Your task to perform on an android device: turn pop-ups off in chrome Image 0: 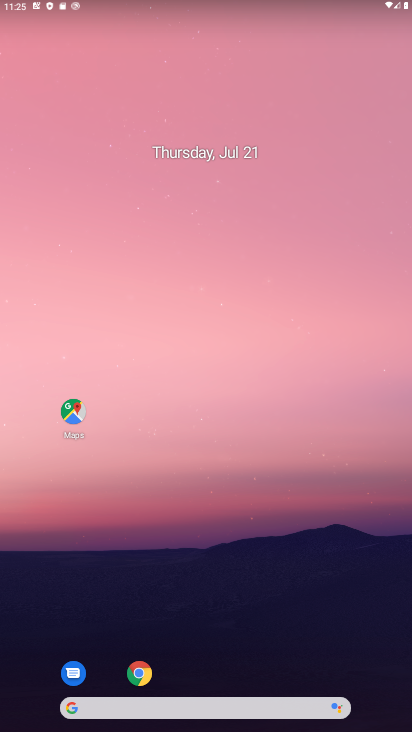
Step 0: click (149, 677)
Your task to perform on an android device: turn pop-ups off in chrome Image 1: 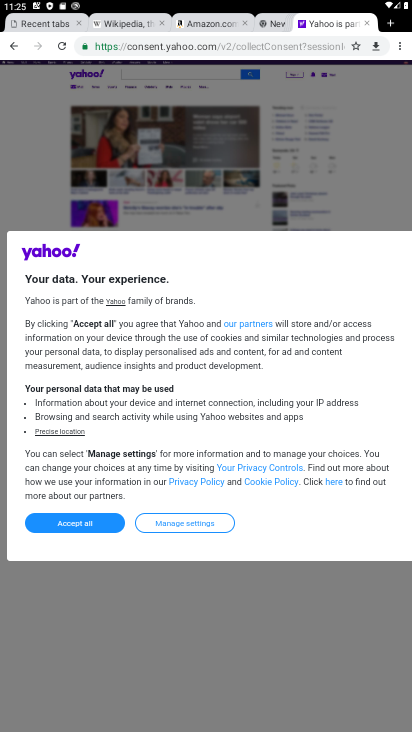
Step 1: click (396, 47)
Your task to perform on an android device: turn pop-ups off in chrome Image 2: 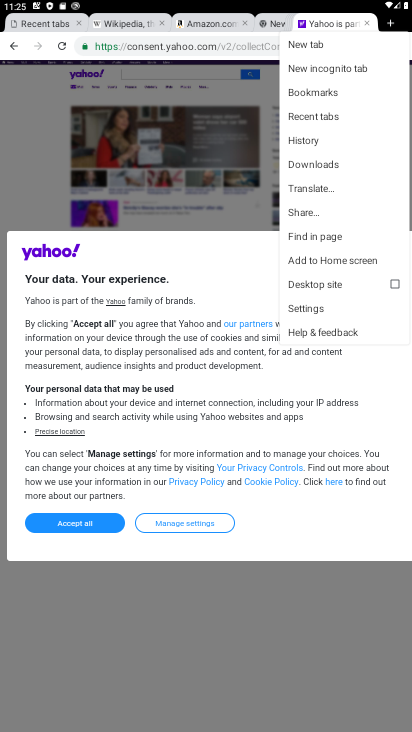
Step 2: click (314, 308)
Your task to perform on an android device: turn pop-ups off in chrome Image 3: 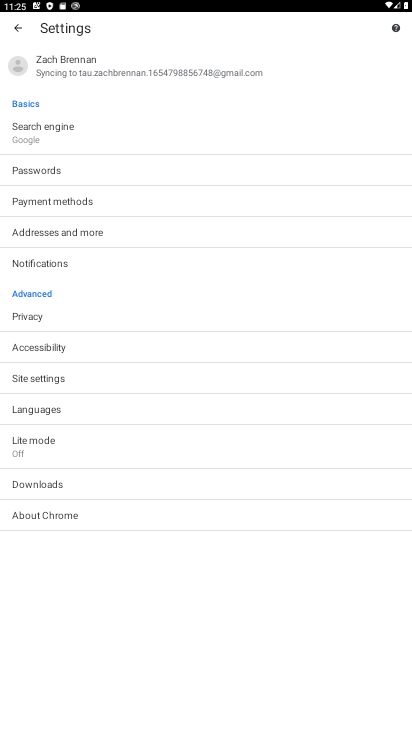
Step 3: click (84, 389)
Your task to perform on an android device: turn pop-ups off in chrome Image 4: 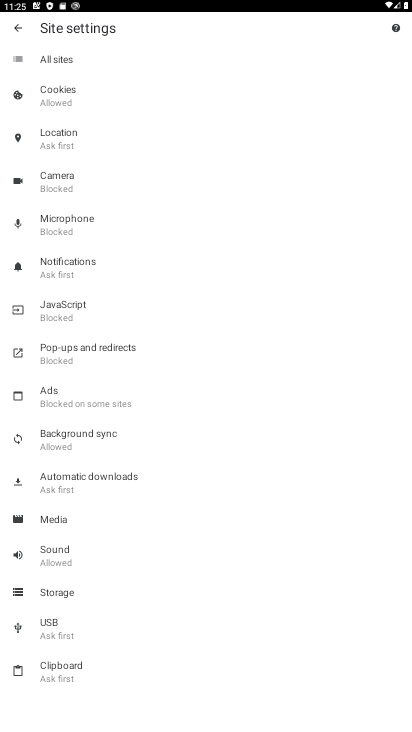
Step 4: click (117, 362)
Your task to perform on an android device: turn pop-ups off in chrome Image 5: 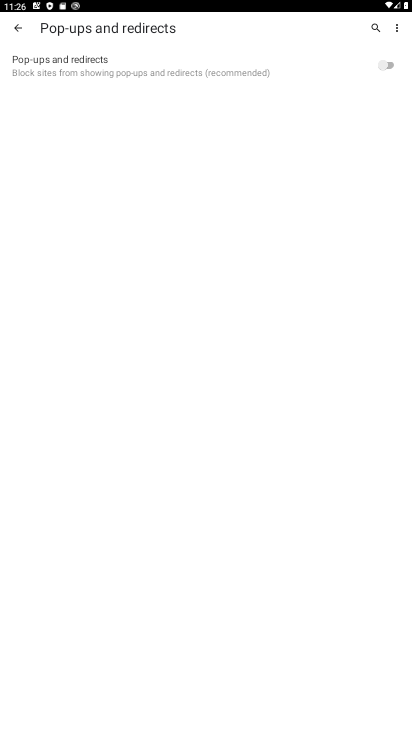
Step 5: task complete